Your task to perform on an android device: Open the phone app and click the voicemail tab. Image 0: 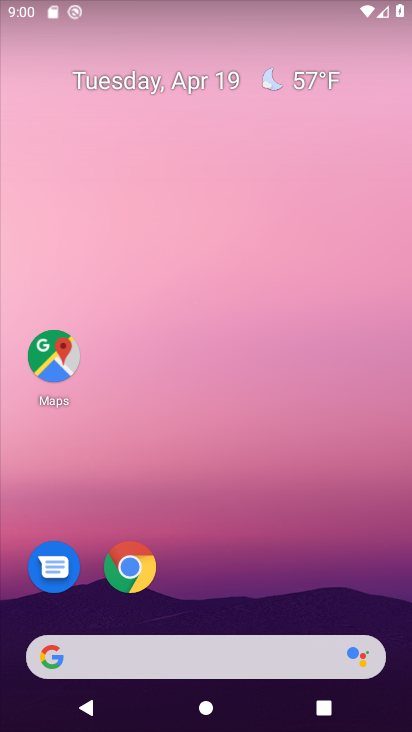
Step 0: drag from (273, 663) to (363, 169)
Your task to perform on an android device: Open the phone app and click the voicemail tab. Image 1: 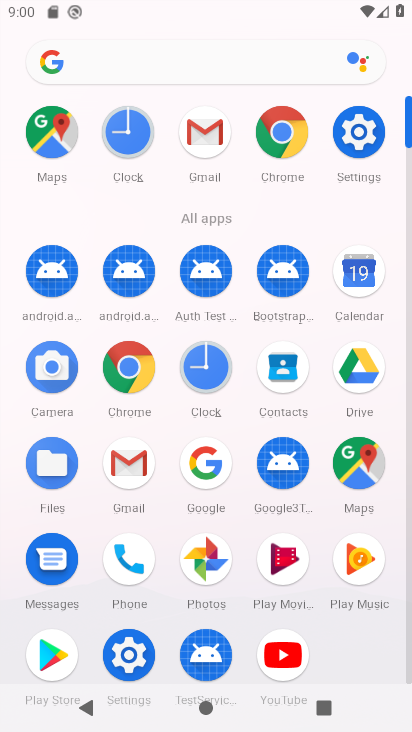
Step 1: click (135, 564)
Your task to perform on an android device: Open the phone app and click the voicemail tab. Image 2: 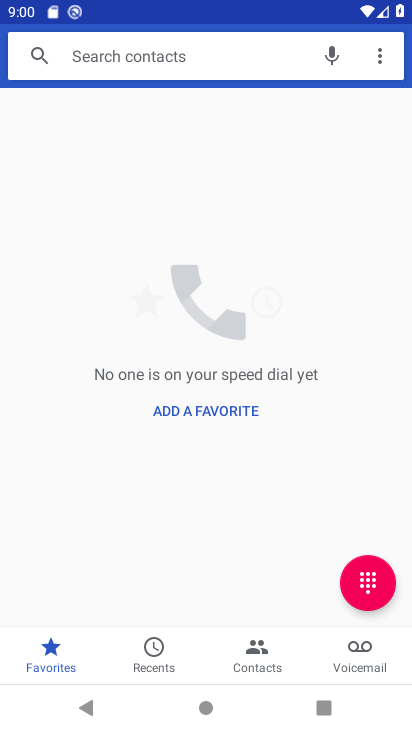
Step 2: click (365, 642)
Your task to perform on an android device: Open the phone app and click the voicemail tab. Image 3: 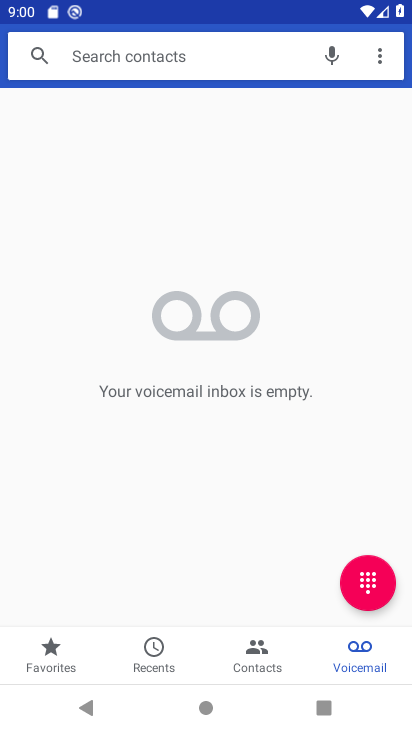
Step 3: task complete